Your task to perform on an android device: Open settings Image 0: 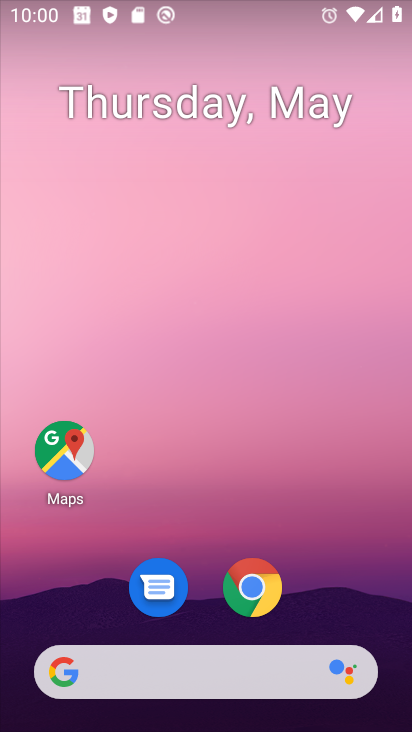
Step 0: drag from (390, 630) to (322, 38)
Your task to perform on an android device: Open settings Image 1: 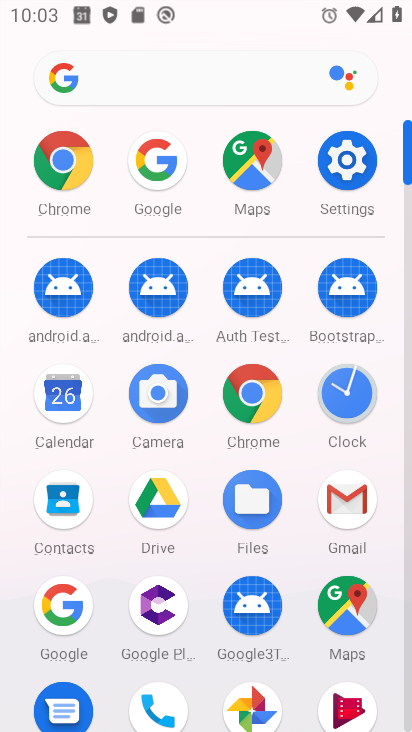
Step 1: click (356, 165)
Your task to perform on an android device: Open settings Image 2: 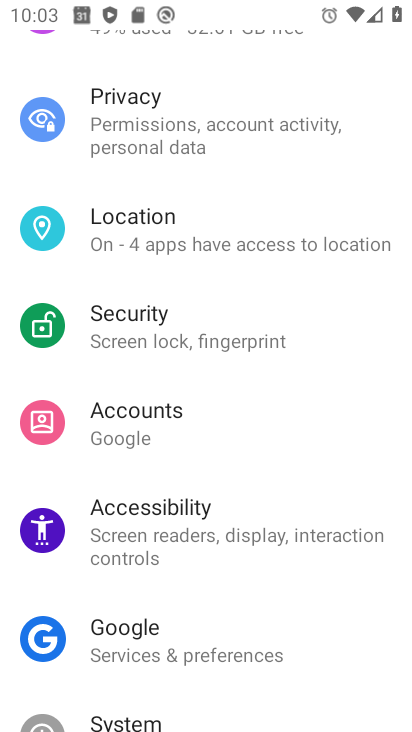
Step 2: task complete